Your task to perform on an android device: turn off notifications in google photos Image 0: 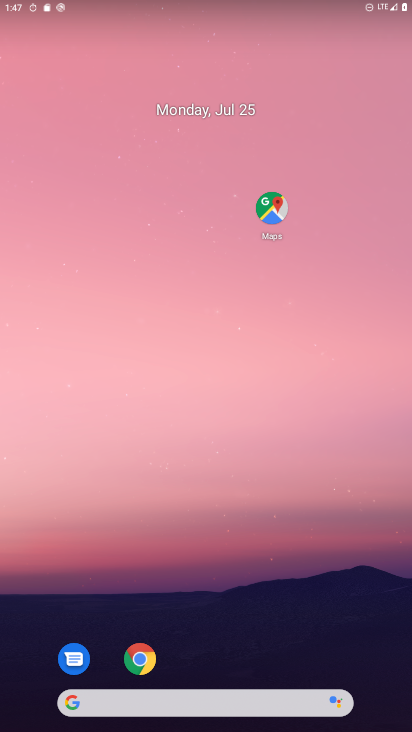
Step 0: drag from (132, 489) to (294, 164)
Your task to perform on an android device: turn off notifications in google photos Image 1: 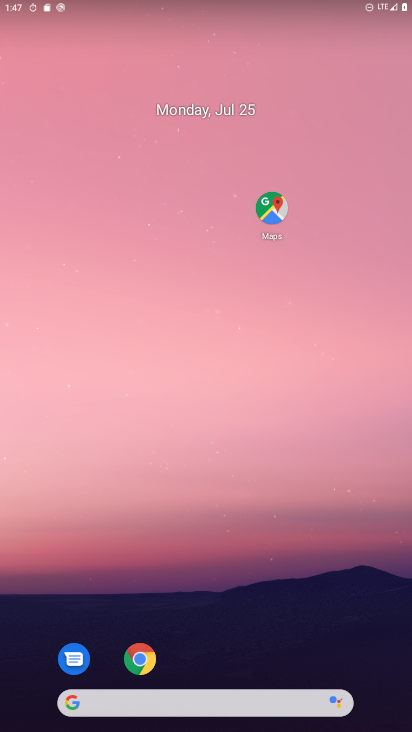
Step 1: drag from (16, 679) to (173, 273)
Your task to perform on an android device: turn off notifications in google photos Image 2: 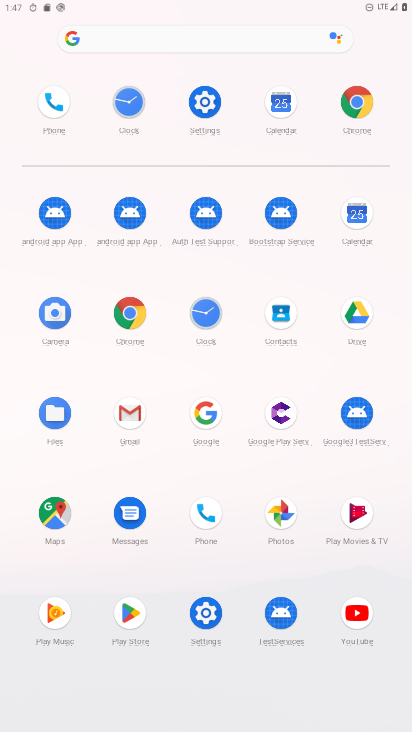
Step 2: click (289, 513)
Your task to perform on an android device: turn off notifications in google photos Image 3: 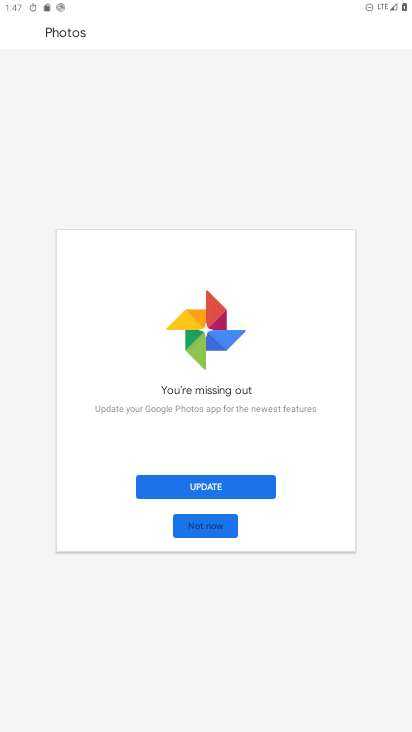
Step 3: click (194, 522)
Your task to perform on an android device: turn off notifications in google photos Image 4: 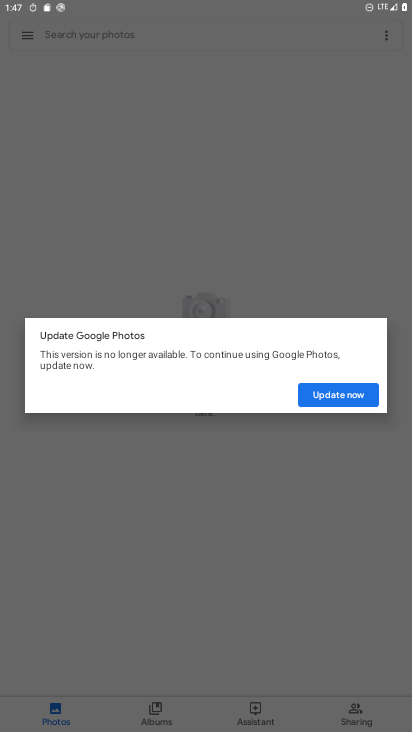
Step 4: click (326, 386)
Your task to perform on an android device: turn off notifications in google photos Image 5: 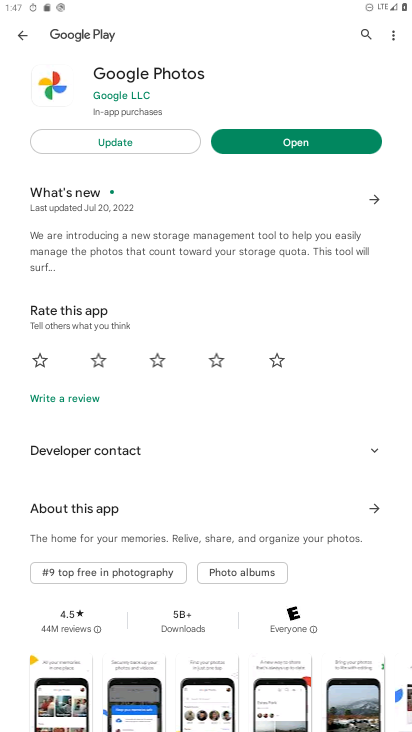
Step 5: click (276, 135)
Your task to perform on an android device: turn off notifications in google photos Image 6: 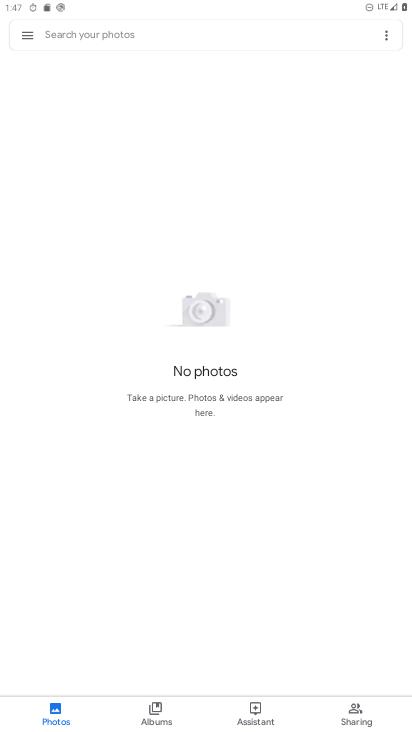
Step 6: click (31, 32)
Your task to perform on an android device: turn off notifications in google photos Image 7: 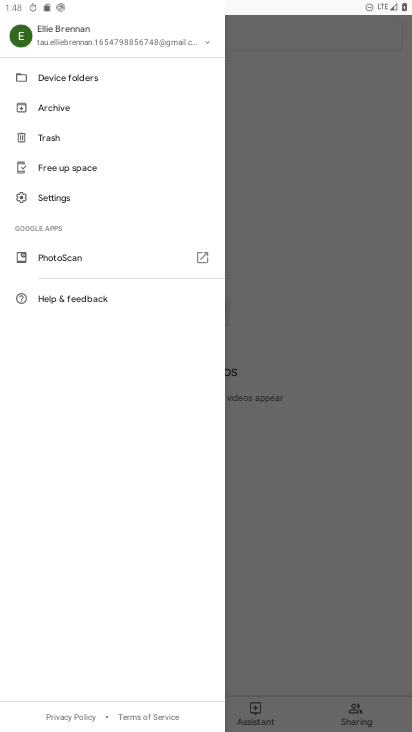
Step 7: click (70, 200)
Your task to perform on an android device: turn off notifications in google photos Image 8: 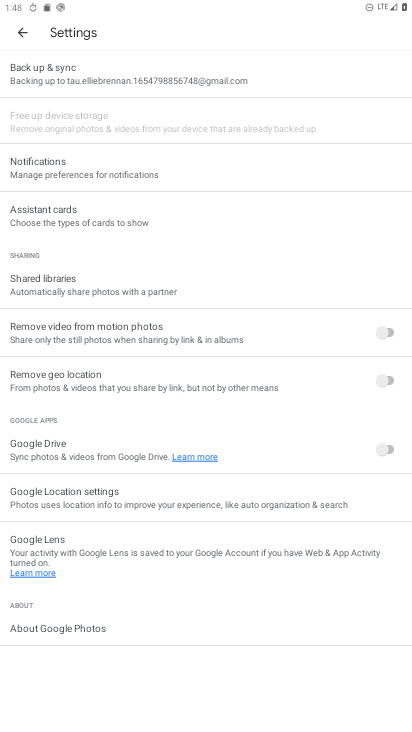
Step 8: click (66, 172)
Your task to perform on an android device: turn off notifications in google photos Image 9: 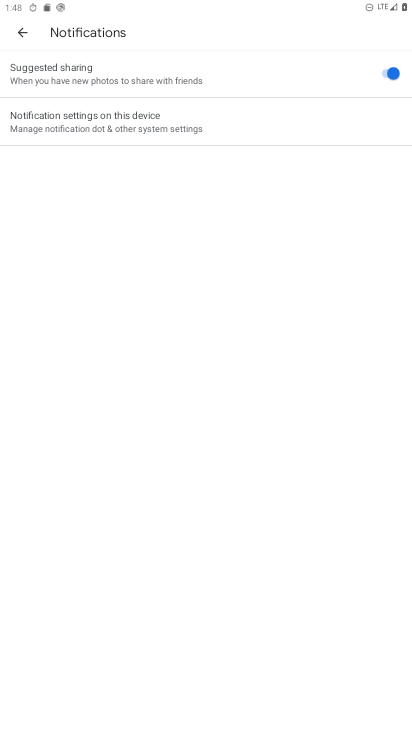
Step 9: click (227, 119)
Your task to perform on an android device: turn off notifications in google photos Image 10: 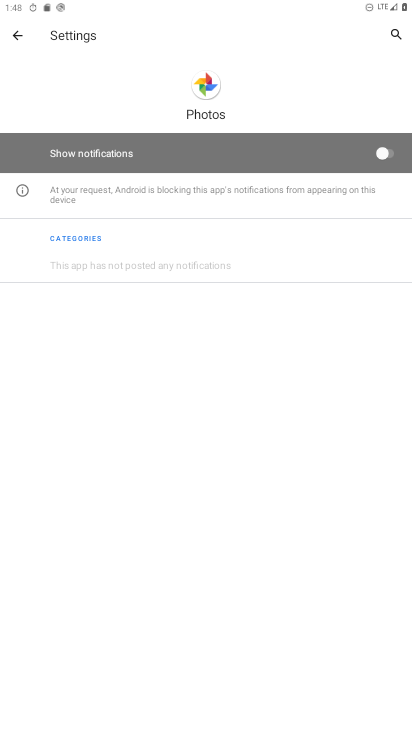
Step 10: task complete